Your task to perform on an android device: Open Youtube and go to the subscriptions tab Image 0: 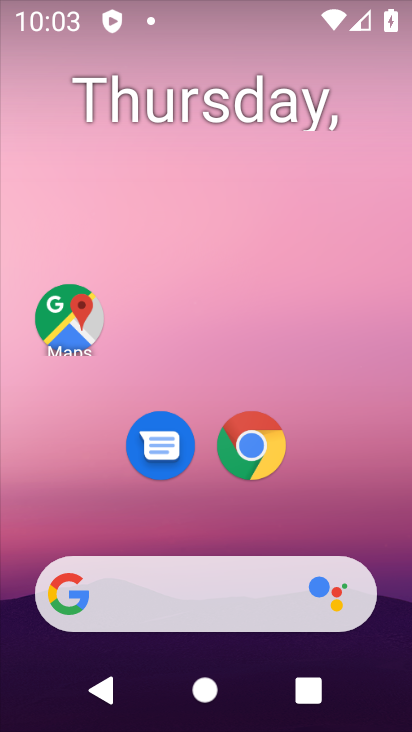
Step 0: drag from (393, 586) to (324, 268)
Your task to perform on an android device: Open Youtube and go to the subscriptions tab Image 1: 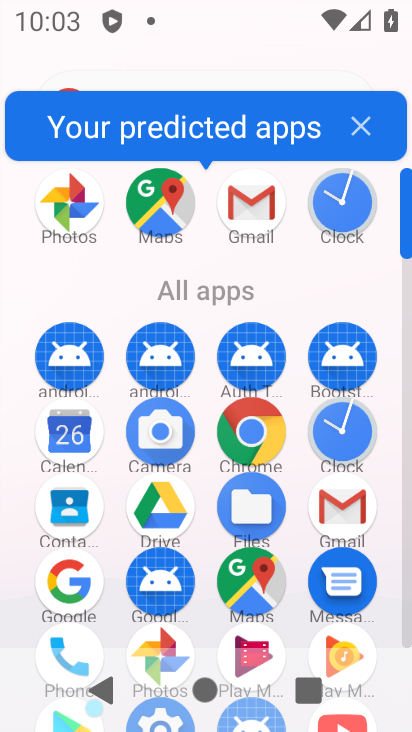
Step 1: click (405, 628)
Your task to perform on an android device: Open Youtube and go to the subscriptions tab Image 2: 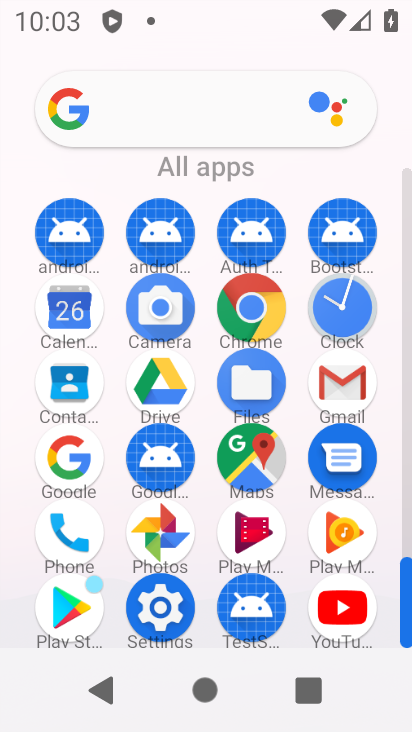
Step 2: click (342, 601)
Your task to perform on an android device: Open Youtube and go to the subscriptions tab Image 3: 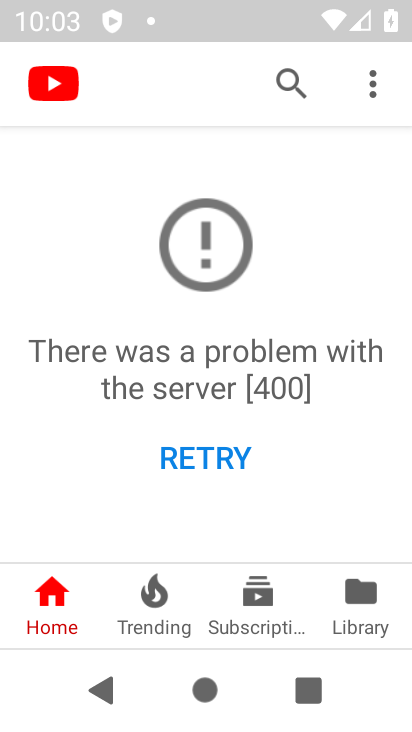
Step 3: click (272, 600)
Your task to perform on an android device: Open Youtube and go to the subscriptions tab Image 4: 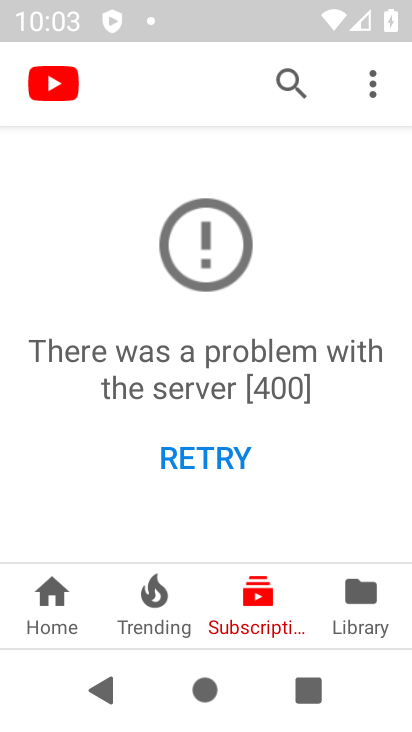
Step 4: task complete